Your task to perform on an android device: When is my next appointment? Image 0: 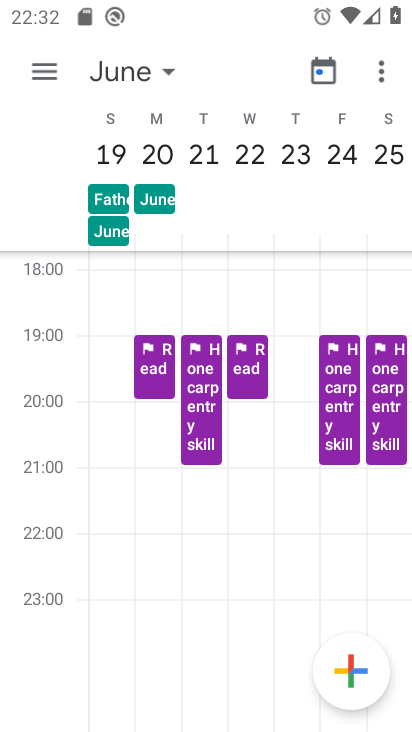
Step 0: drag from (115, 554) to (409, 549)
Your task to perform on an android device: When is my next appointment? Image 1: 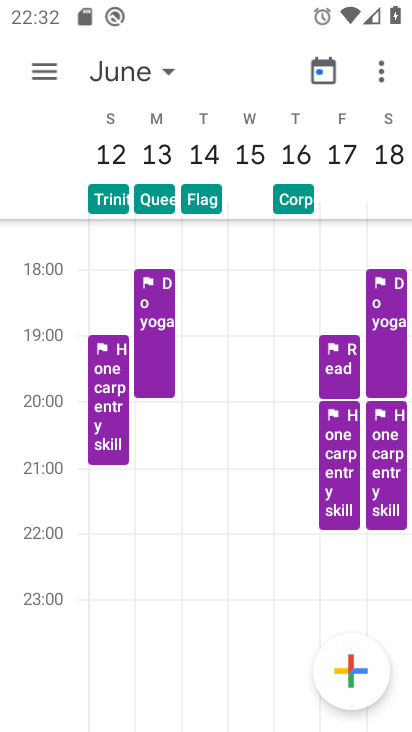
Step 1: drag from (111, 573) to (404, 586)
Your task to perform on an android device: When is my next appointment? Image 2: 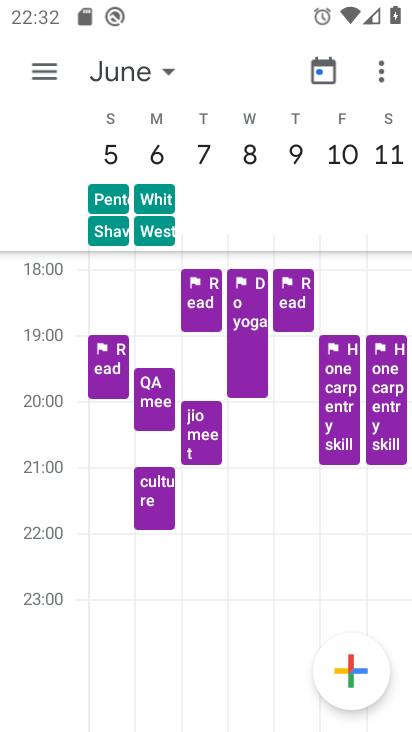
Step 2: drag from (111, 577) to (398, 597)
Your task to perform on an android device: When is my next appointment? Image 3: 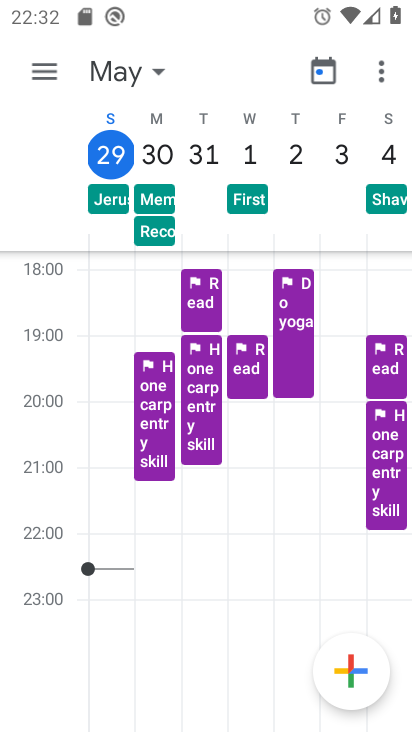
Step 3: drag from (89, 561) to (325, 606)
Your task to perform on an android device: When is my next appointment? Image 4: 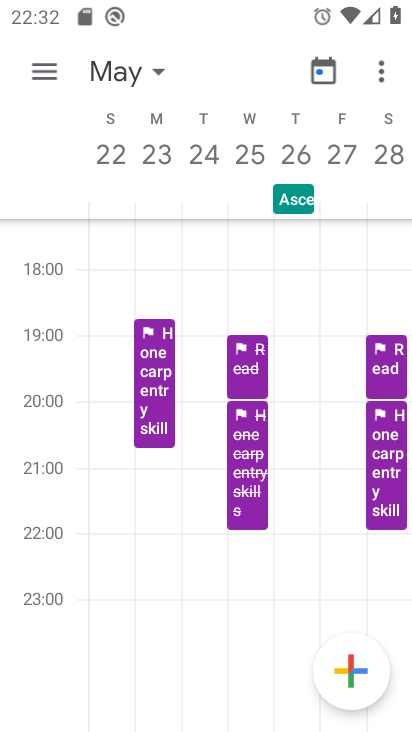
Step 4: drag from (333, 519) to (0, 447)
Your task to perform on an android device: When is my next appointment? Image 5: 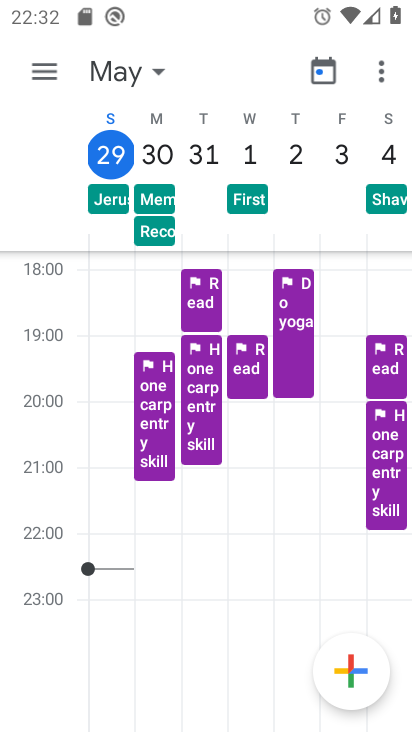
Step 5: click (122, 143)
Your task to perform on an android device: When is my next appointment? Image 6: 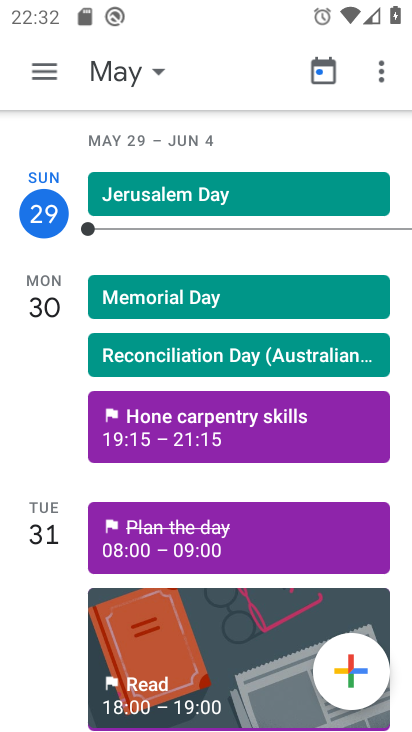
Step 6: task complete